Your task to perform on an android device: open a new tab in the chrome app Image 0: 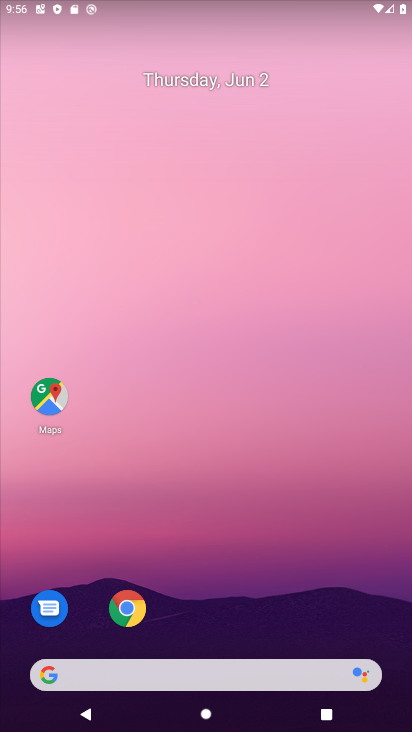
Step 0: click (134, 629)
Your task to perform on an android device: open a new tab in the chrome app Image 1: 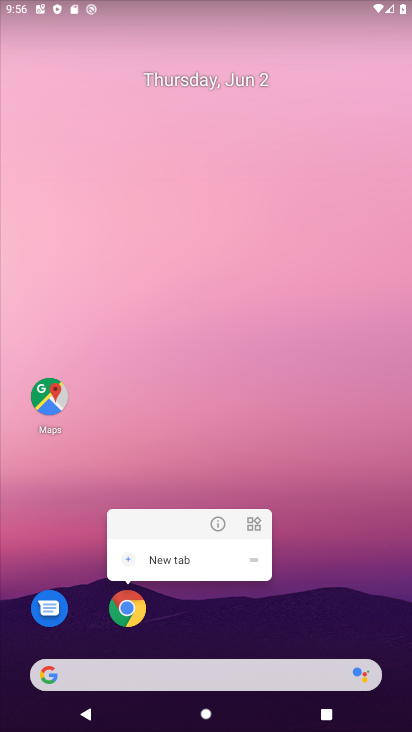
Step 1: click (130, 616)
Your task to perform on an android device: open a new tab in the chrome app Image 2: 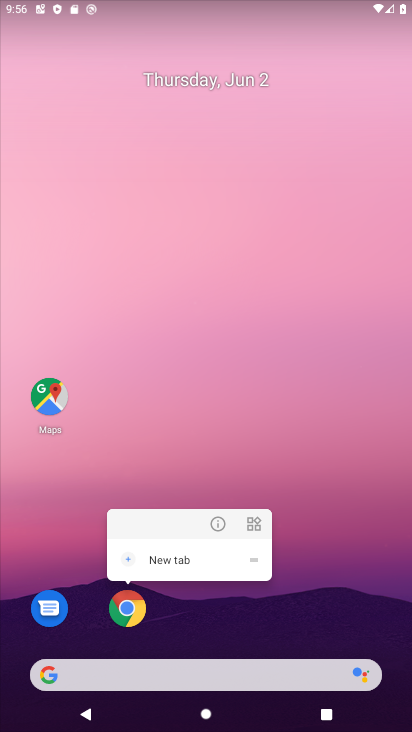
Step 2: click (129, 603)
Your task to perform on an android device: open a new tab in the chrome app Image 3: 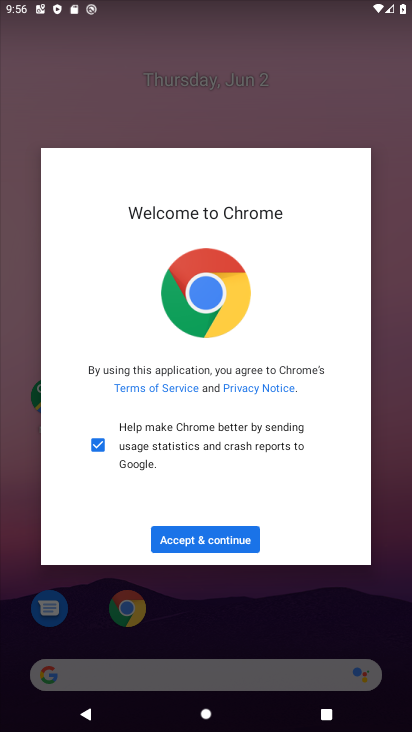
Step 3: click (235, 533)
Your task to perform on an android device: open a new tab in the chrome app Image 4: 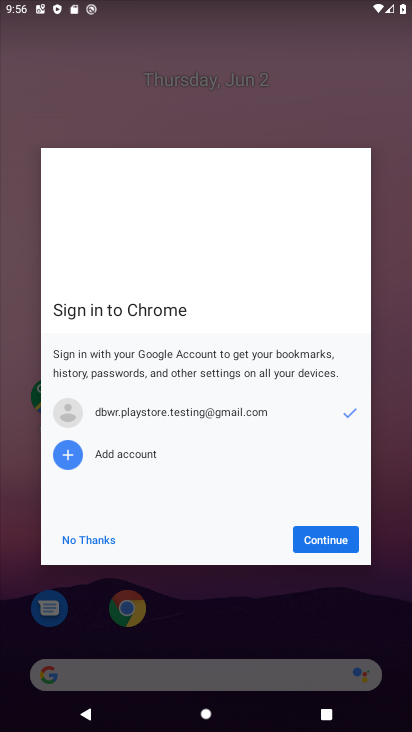
Step 4: click (332, 536)
Your task to perform on an android device: open a new tab in the chrome app Image 5: 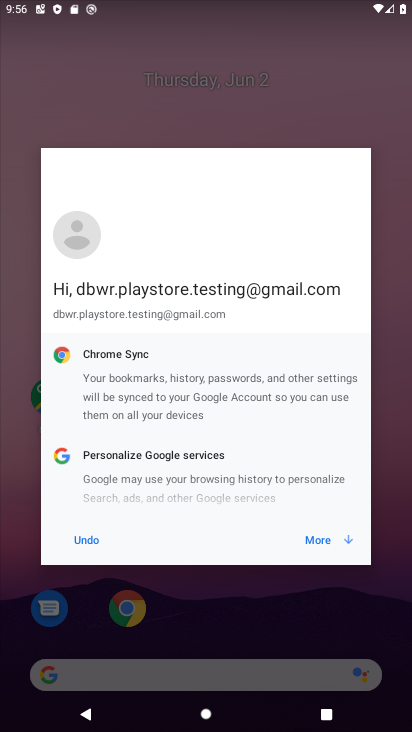
Step 5: click (331, 537)
Your task to perform on an android device: open a new tab in the chrome app Image 6: 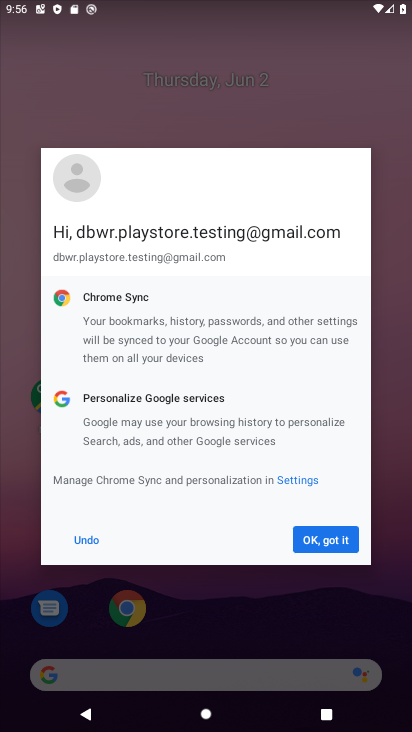
Step 6: click (332, 539)
Your task to perform on an android device: open a new tab in the chrome app Image 7: 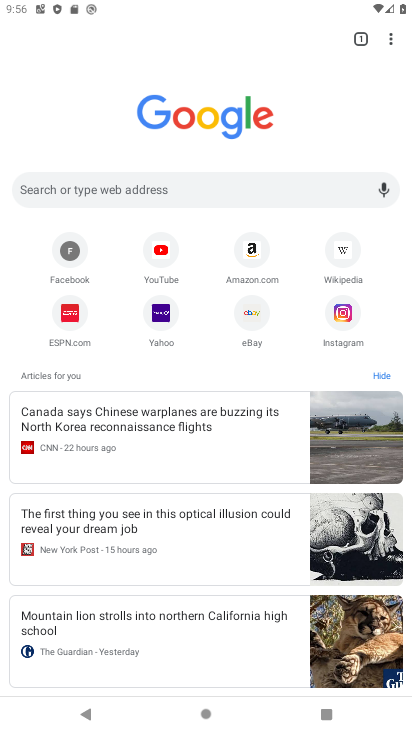
Step 7: task complete